Your task to perform on an android device: When is my next appointment? Image 0: 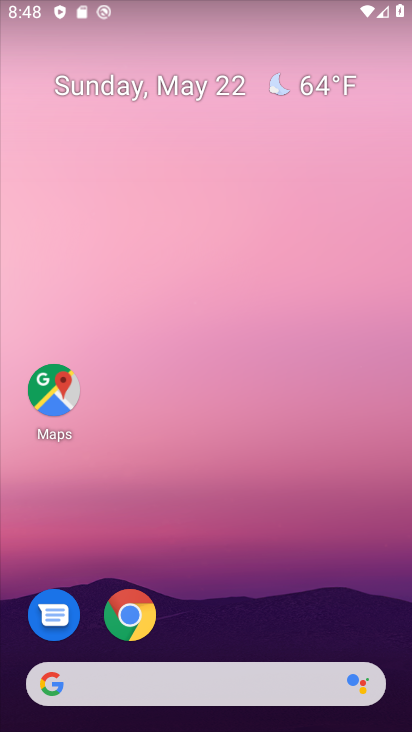
Step 0: drag from (218, 648) to (243, 72)
Your task to perform on an android device: When is my next appointment? Image 1: 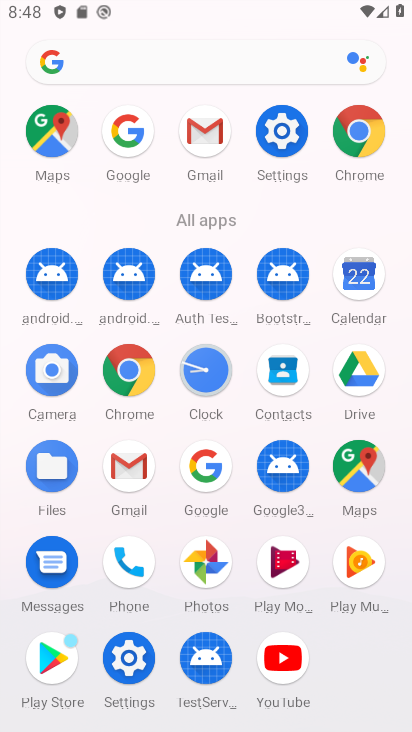
Step 1: click (357, 274)
Your task to perform on an android device: When is my next appointment? Image 2: 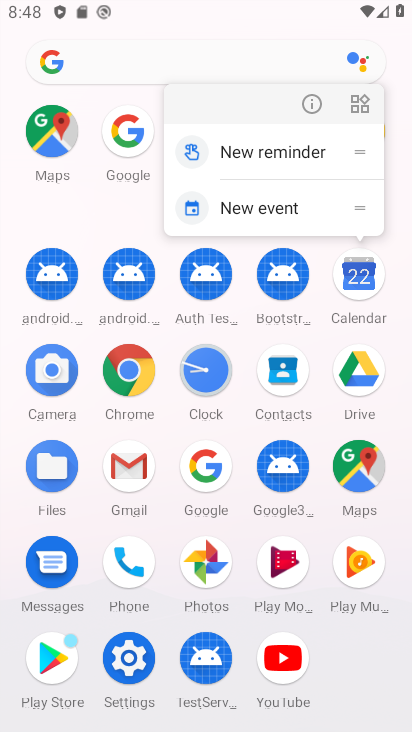
Step 2: click (370, 289)
Your task to perform on an android device: When is my next appointment? Image 3: 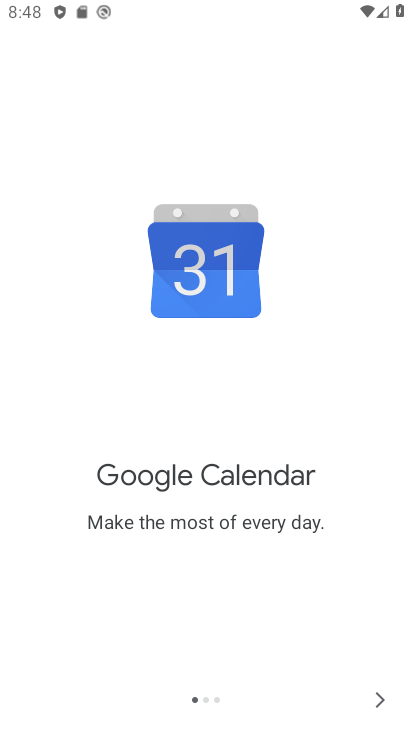
Step 3: click (377, 702)
Your task to perform on an android device: When is my next appointment? Image 4: 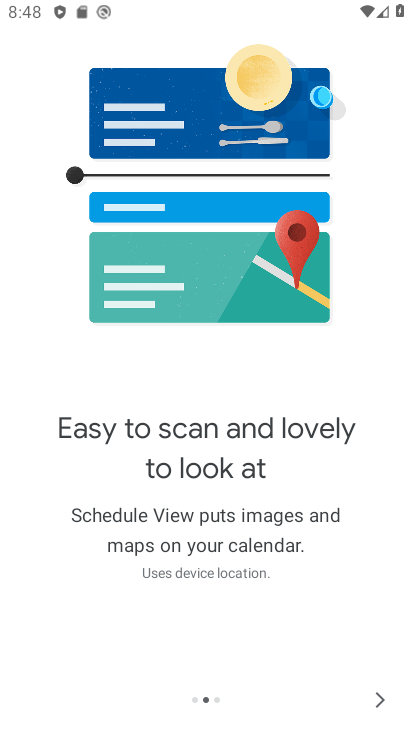
Step 4: click (378, 699)
Your task to perform on an android device: When is my next appointment? Image 5: 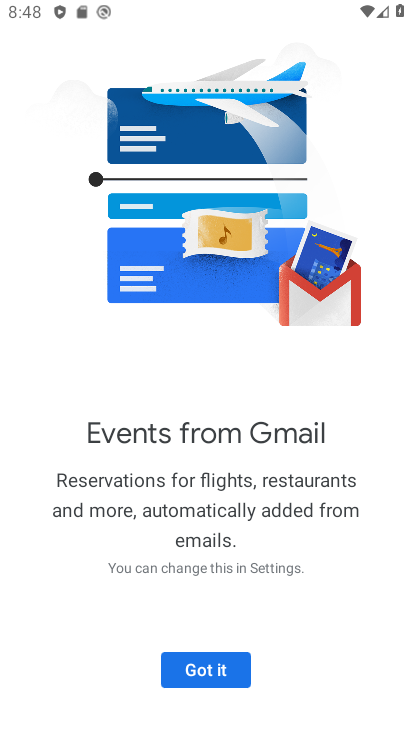
Step 5: click (214, 668)
Your task to perform on an android device: When is my next appointment? Image 6: 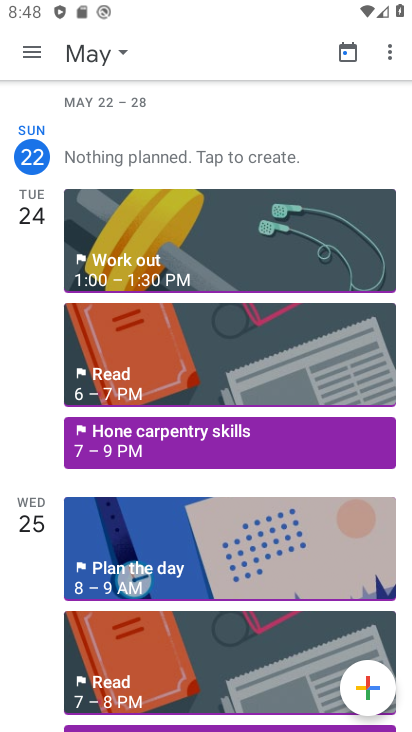
Step 6: click (207, 459)
Your task to perform on an android device: When is my next appointment? Image 7: 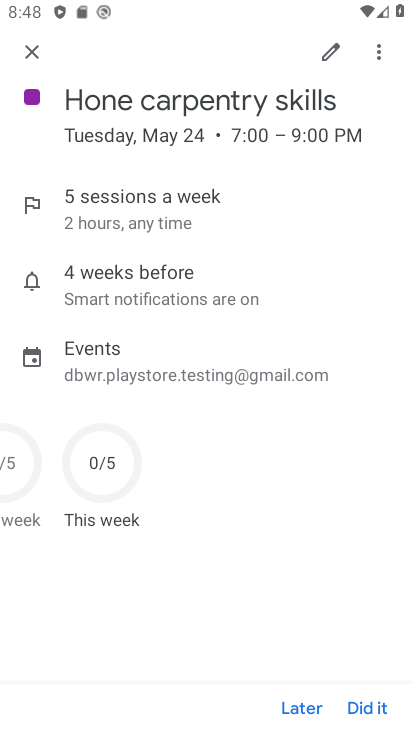
Step 7: click (27, 56)
Your task to perform on an android device: When is my next appointment? Image 8: 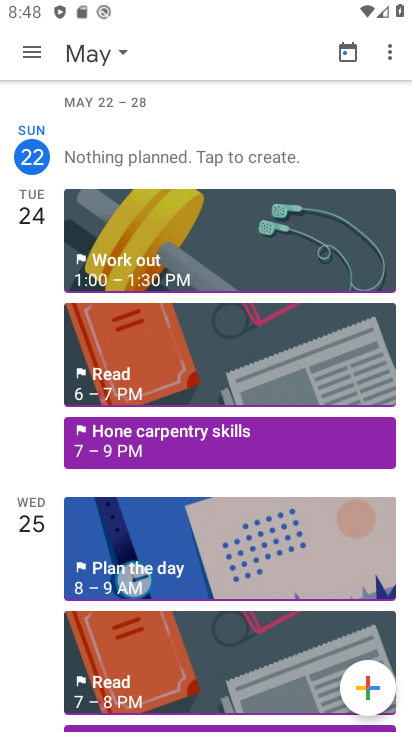
Step 8: task complete